Your task to perform on an android device: turn on showing notifications on the lock screen Image 0: 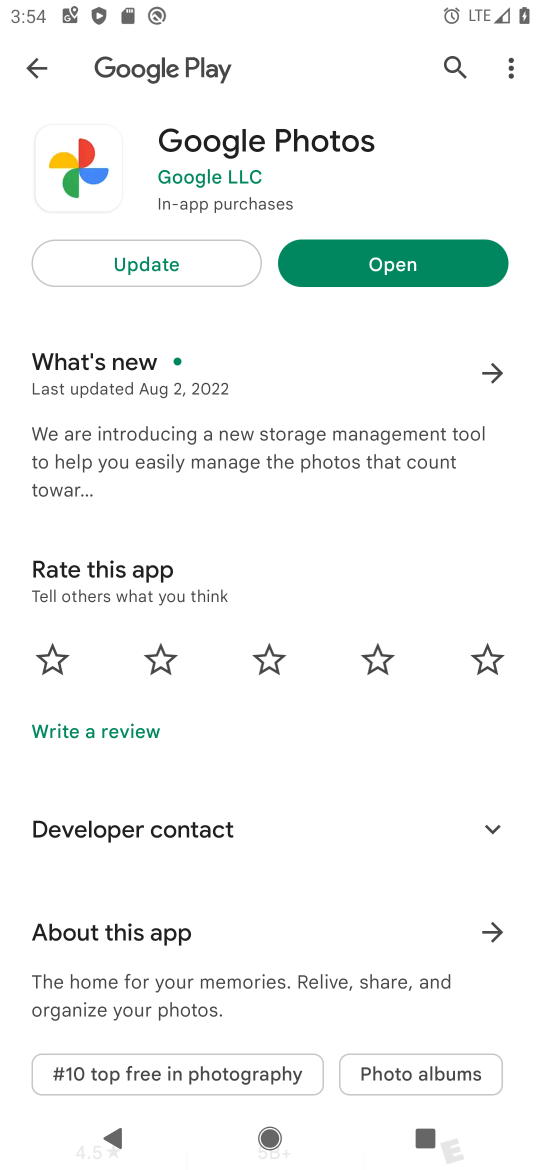
Step 0: press home button
Your task to perform on an android device: turn on showing notifications on the lock screen Image 1: 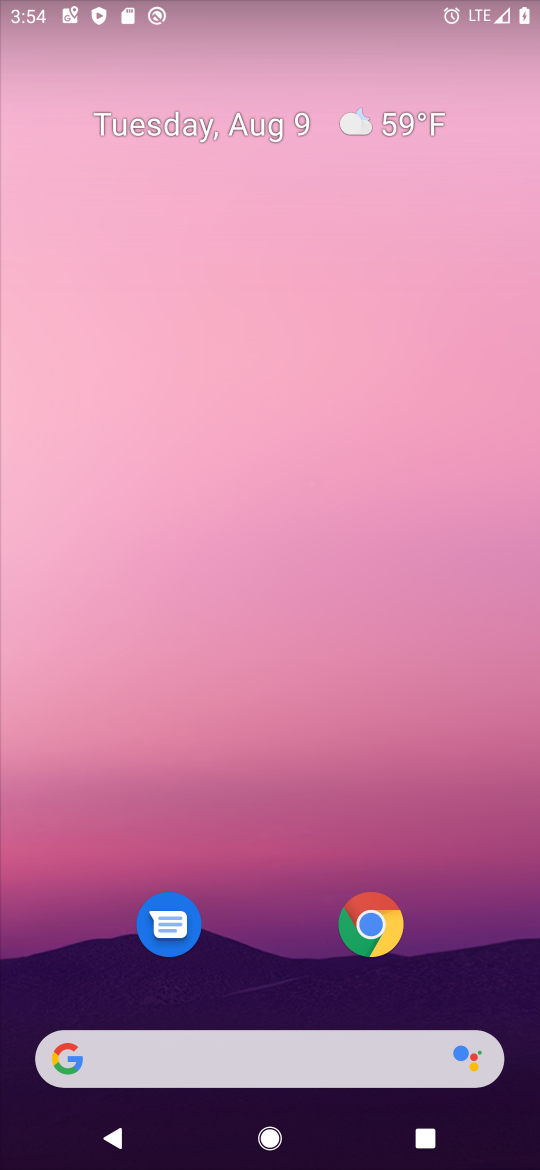
Step 1: drag from (285, 932) to (316, 30)
Your task to perform on an android device: turn on showing notifications on the lock screen Image 2: 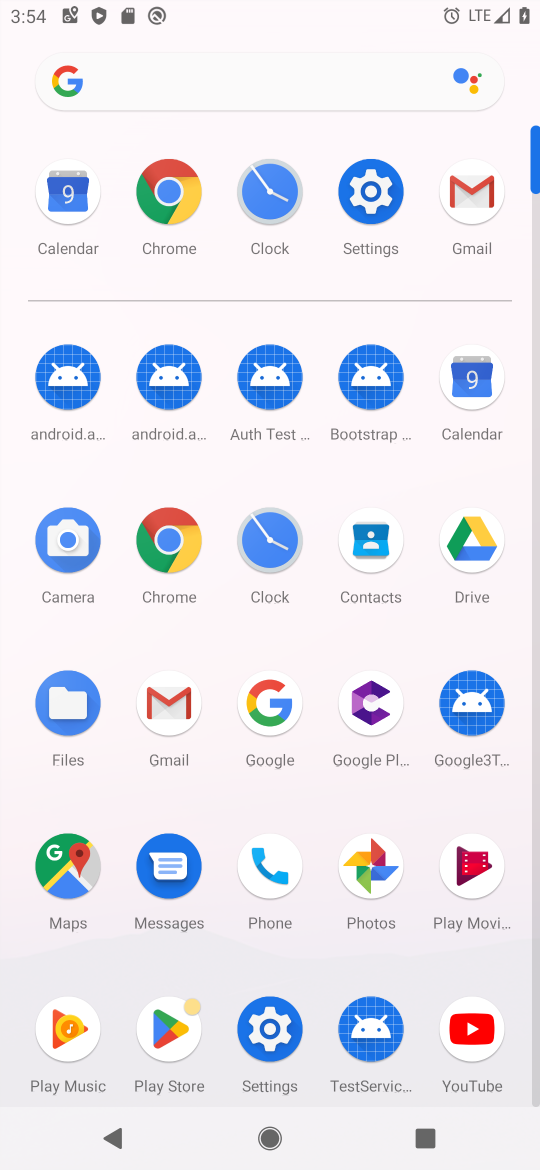
Step 2: click (374, 184)
Your task to perform on an android device: turn on showing notifications on the lock screen Image 3: 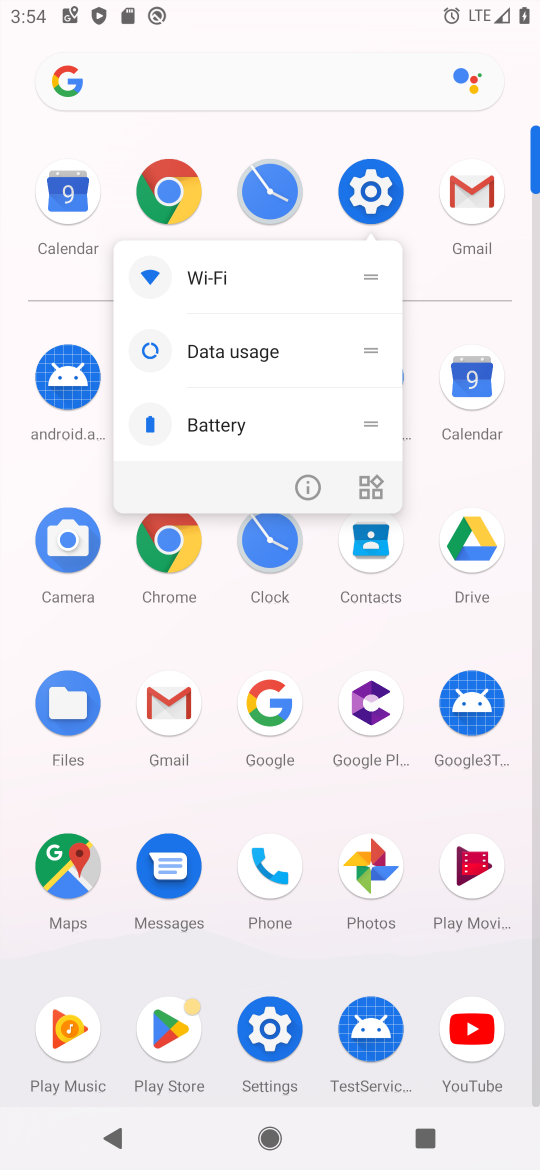
Step 3: click (374, 184)
Your task to perform on an android device: turn on showing notifications on the lock screen Image 4: 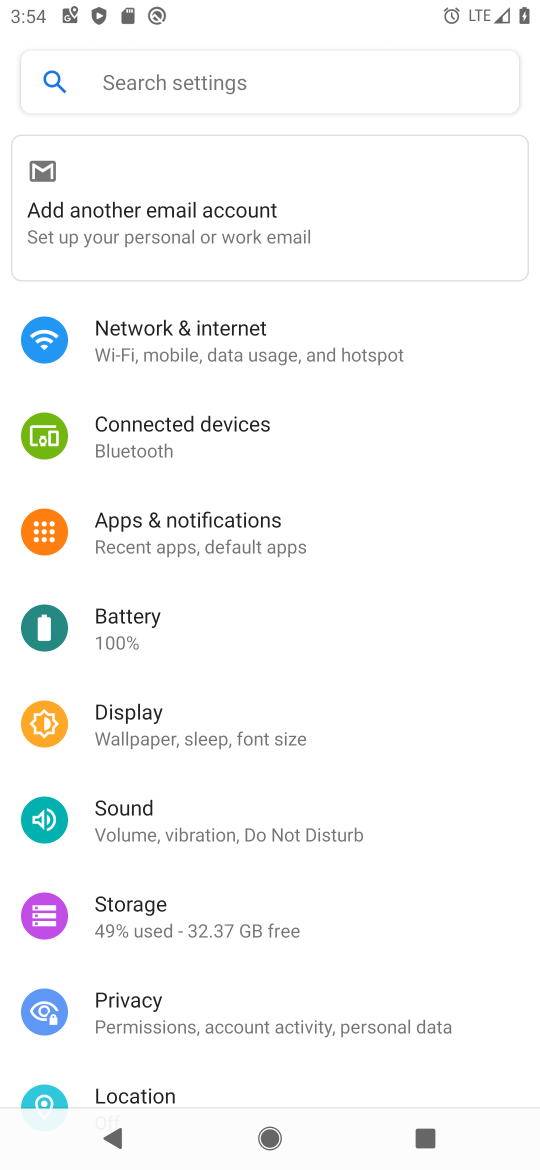
Step 4: click (247, 536)
Your task to perform on an android device: turn on showing notifications on the lock screen Image 5: 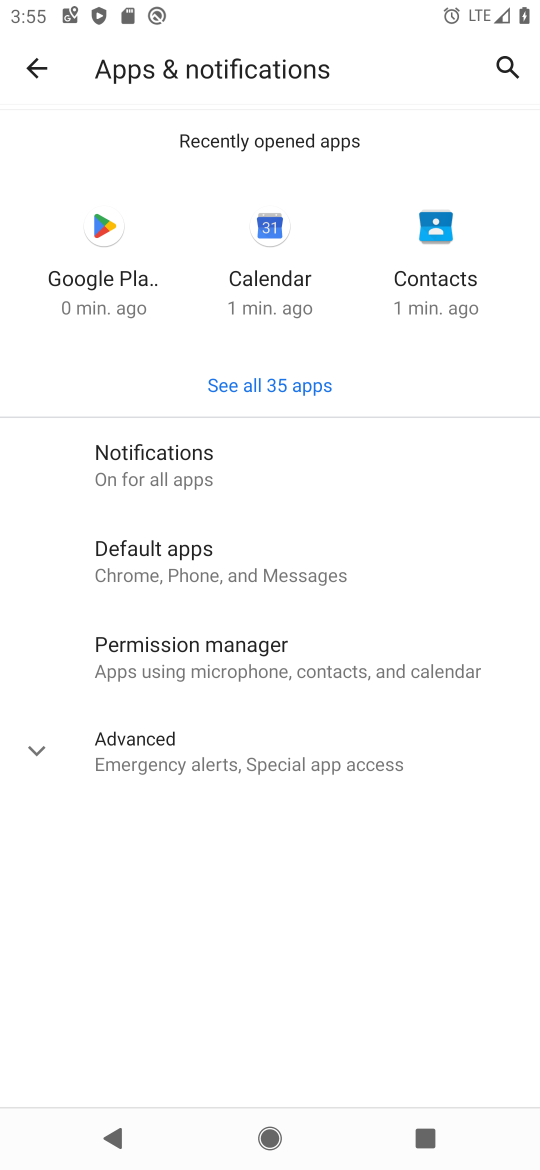
Step 5: click (183, 469)
Your task to perform on an android device: turn on showing notifications on the lock screen Image 6: 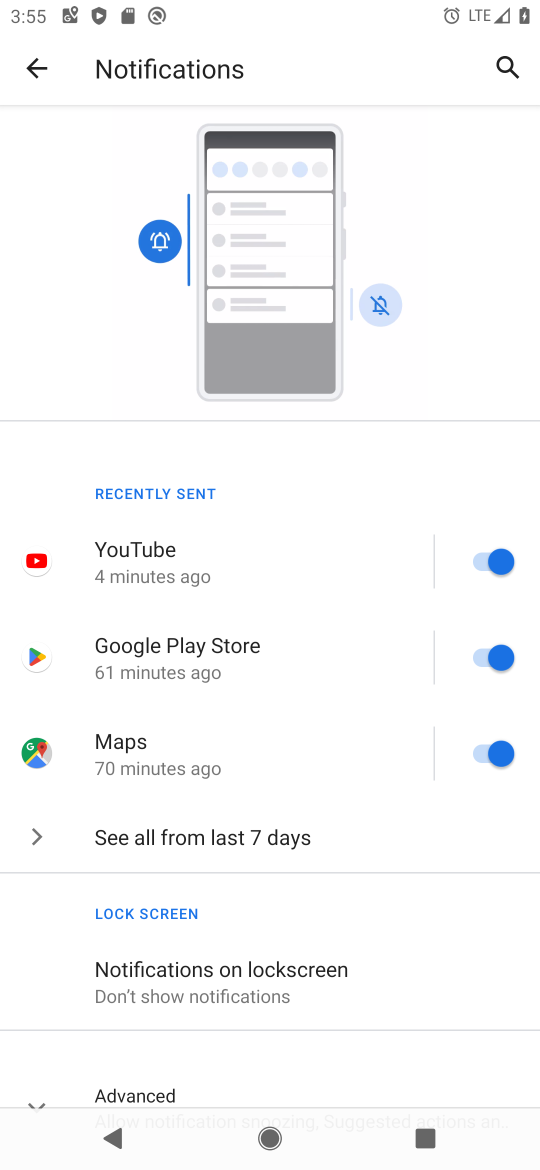
Step 6: click (272, 987)
Your task to perform on an android device: turn on showing notifications on the lock screen Image 7: 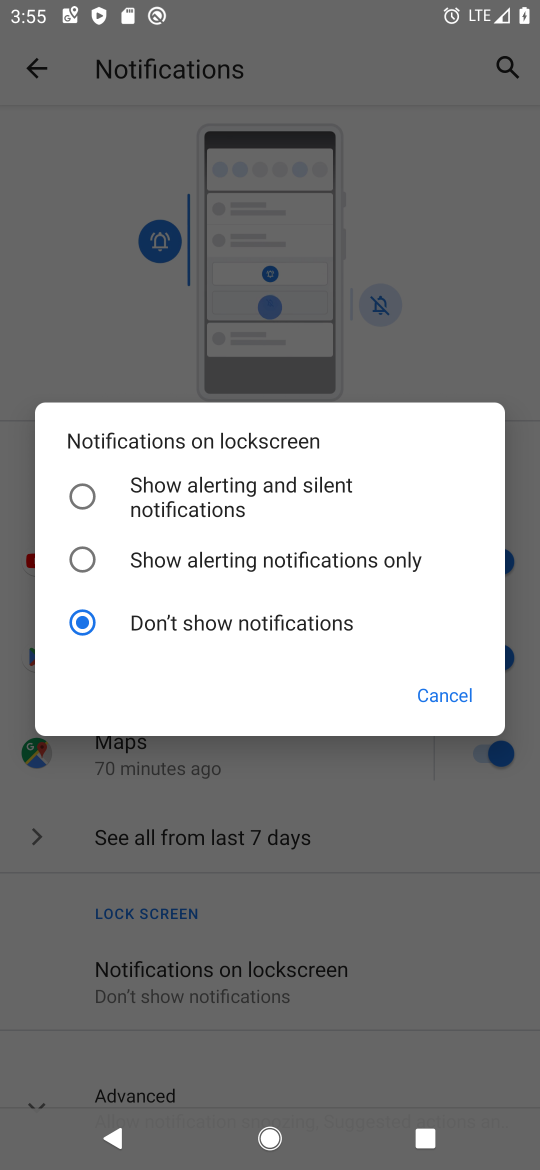
Step 7: click (88, 495)
Your task to perform on an android device: turn on showing notifications on the lock screen Image 8: 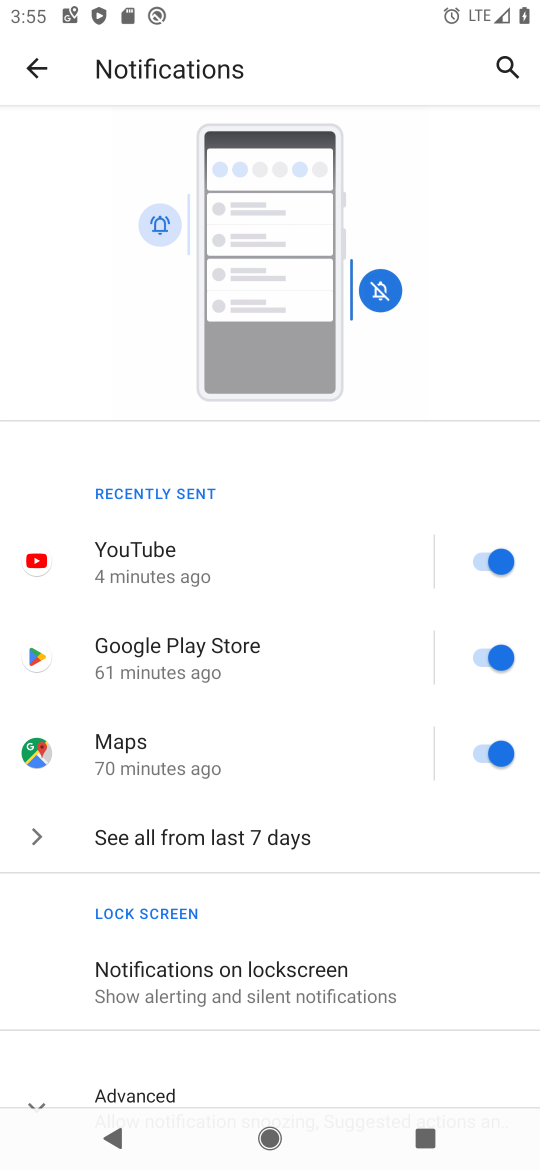
Step 8: task complete